Your task to perform on an android device: Search for "razer naga" on walmart, select the first entry, and add it to the cart. Image 0: 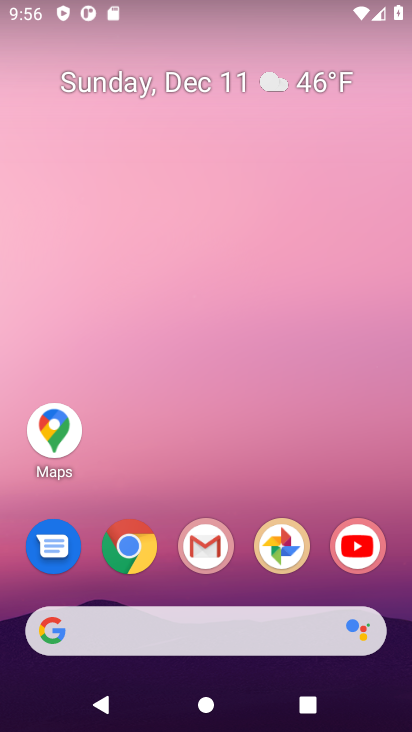
Step 0: click (128, 543)
Your task to perform on an android device: Search for "razer naga" on walmart, select the first entry, and add it to the cart. Image 1: 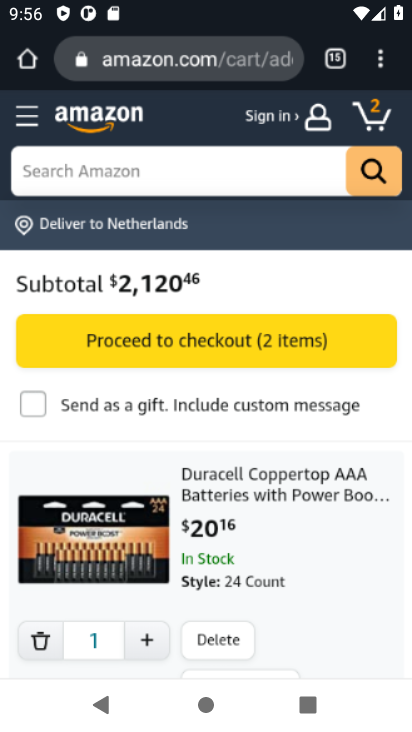
Step 1: click (180, 93)
Your task to perform on an android device: Search for "razer naga" on walmart, select the first entry, and add it to the cart. Image 2: 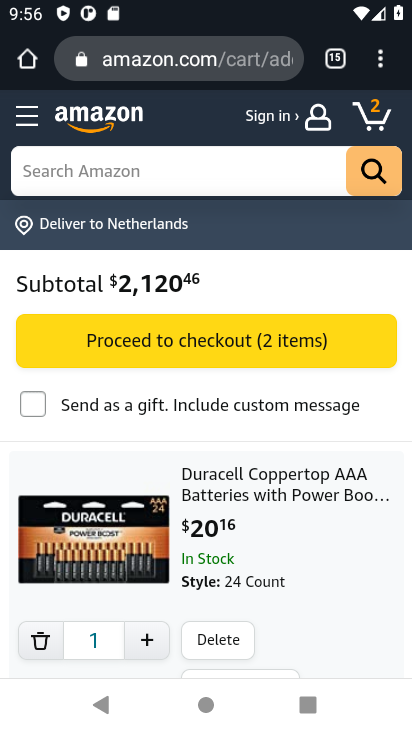
Step 2: click (186, 72)
Your task to perform on an android device: Search for "razer naga" on walmart, select the first entry, and add it to the cart. Image 3: 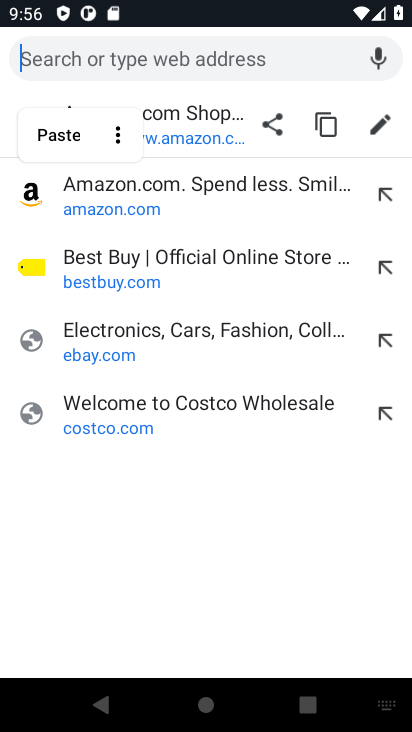
Step 3: type "walmart.com"
Your task to perform on an android device: Search for "razer naga" on walmart, select the first entry, and add it to the cart. Image 4: 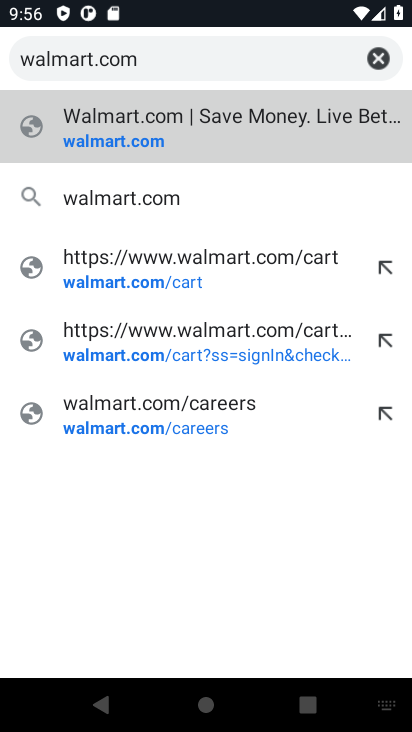
Step 4: click (92, 146)
Your task to perform on an android device: Search for "razer naga" on walmart, select the first entry, and add it to the cart. Image 5: 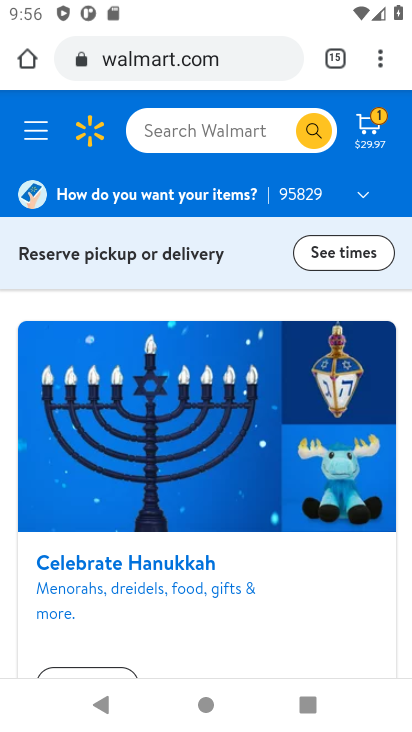
Step 5: click (187, 135)
Your task to perform on an android device: Search for "razer naga" on walmart, select the first entry, and add it to the cart. Image 6: 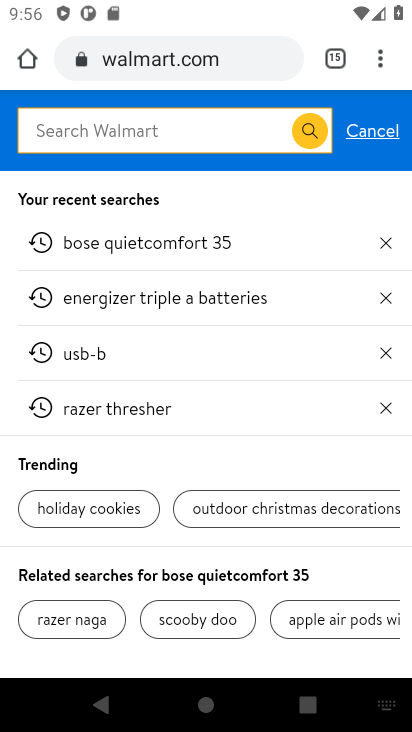
Step 6: type "razer naga"
Your task to perform on an android device: Search for "razer naga" on walmart, select the first entry, and add it to the cart. Image 7: 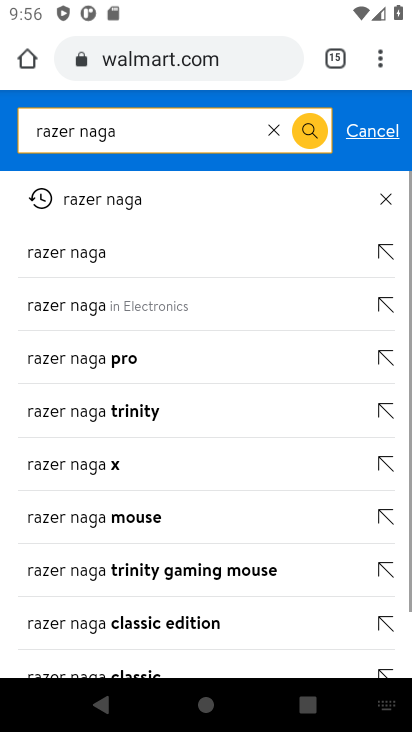
Step 7: click (88, 201)
Your task to perform on an android device: Search for "razer naga" on walmart, select the first entry, and add it to the cart. Image 8: 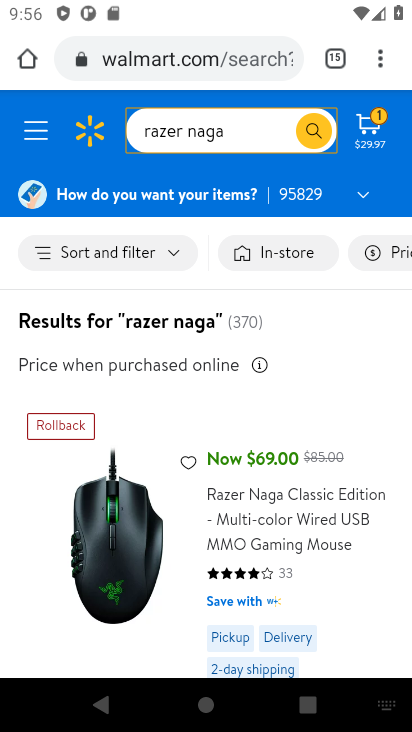
Step 8: drag from (163, 476) to (162, 291)
Your task to perform on an android device: Search for "razer naga" on walmart, select the first entry, and add it to the cart. Image 9: 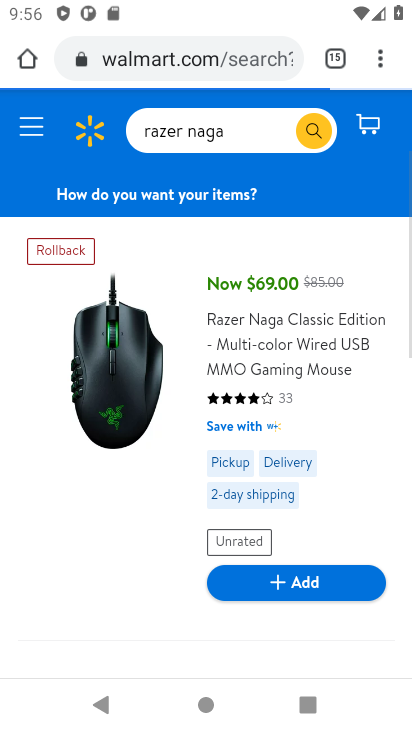
Step 9: click (270, 579)
Your task to perform on an android device: Search for "razer naga" on walmart, select the first entry, and add it to the cart. Image 10: 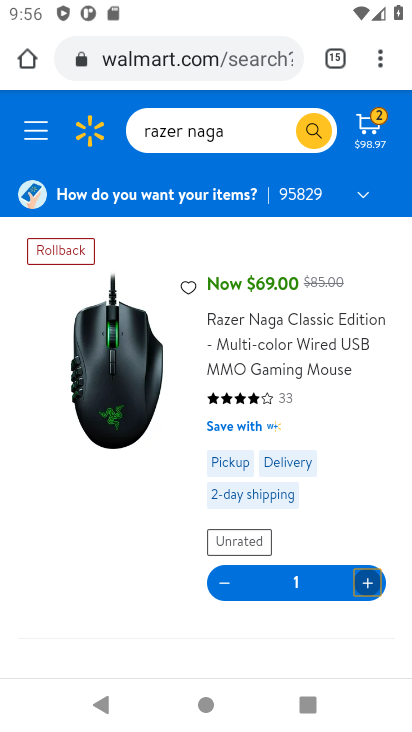
Step 10: task complete